Your task to perform on an android device: turn on the 24-hour format for clock Image 0: 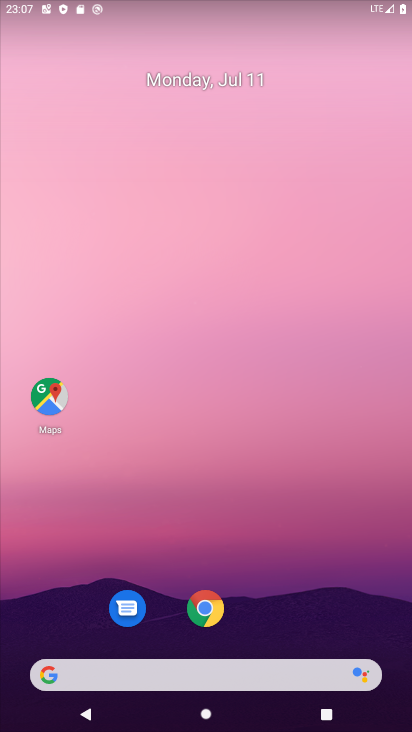
Step 0: drag from (30, 717) to (399, 441)
Your task to perform on an android device: turn on the 24-hour format for clock Image 1: 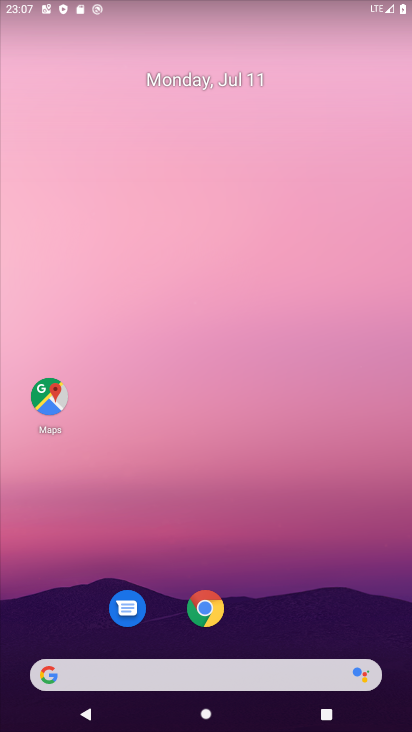
Step 1: drag from (16, 705) to (276, 34)
Your task to perform on an android device: turn on the 24-hour format for clock Image 2: 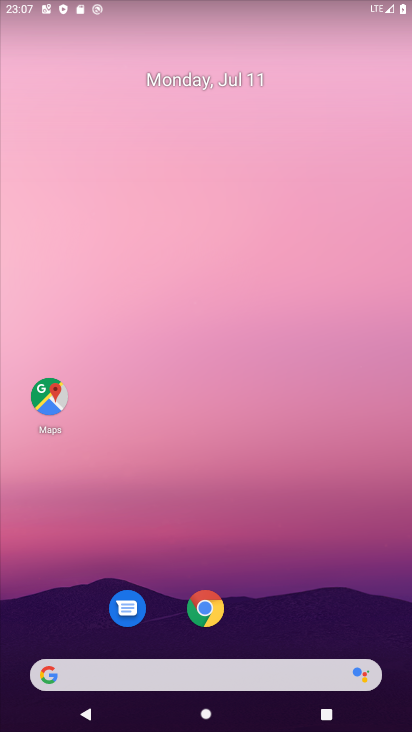
Step 2: drag from (7, 708) to (326, 6)
Your task to perform on an android device: turn on the 24-hour format for clock Image 3: 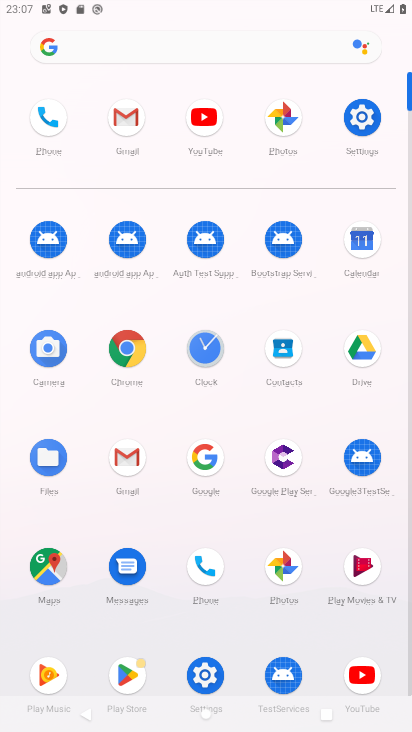
Step 3: click (207, 680)
Your task to perform on an android device: turn on the 24-hour format for clock Image 4: 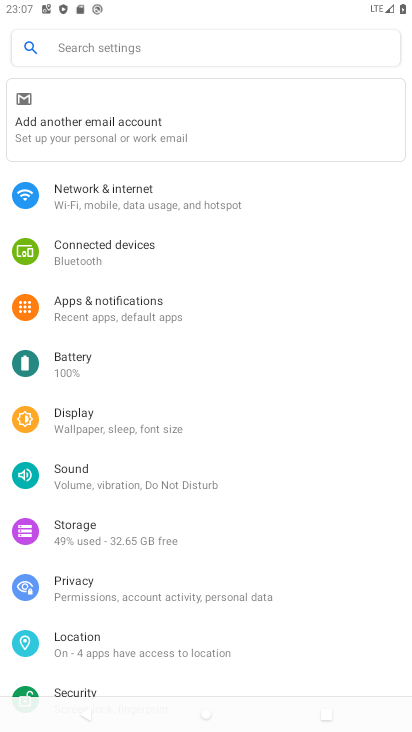
Step 4: task complete